Your task to perform on an android device: Open accessibility settings Image 0: 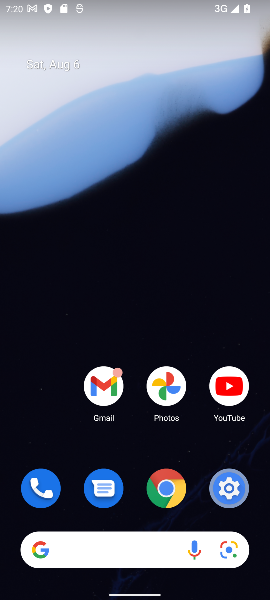
Step 0: click (229, 496)
Your task to perform on an android device: Open accessibility settings Image 1: 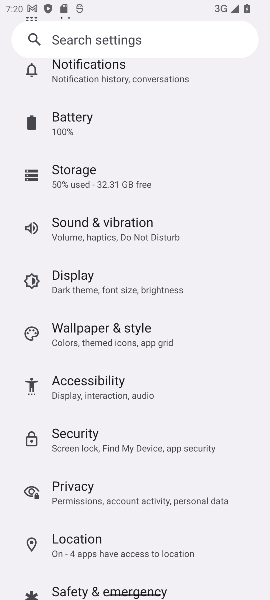
Step 1: click (139, 388)
Your task to perform on an android device: Open accessibility settings Image 2: 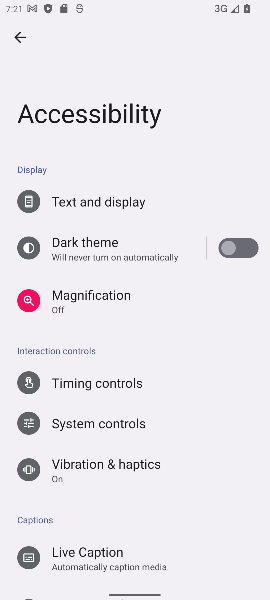
Step 2: task complete